Your task to perform on an android device: Open Chrome and go to settings Image 0: 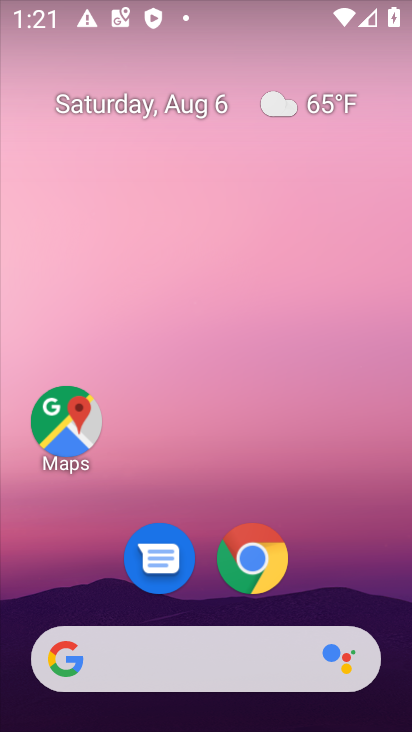
Step 0: click (256, 552)
Your task to perform on an android device: Open Chrome and go to settings Image 1: 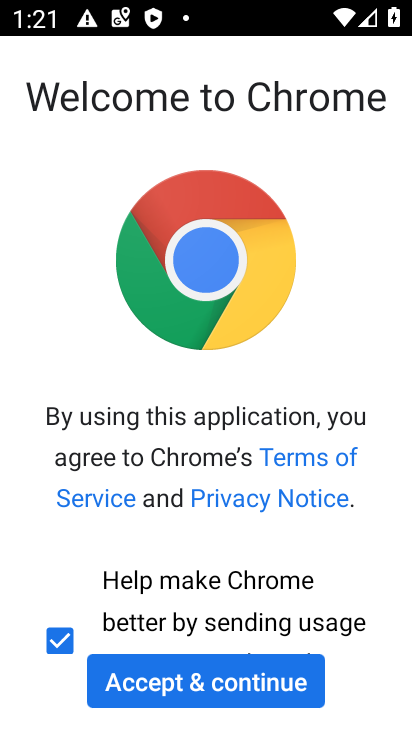
Step 1: click (207, 696)
Your task to perform on an android device: Open Chrome and go to settings Image 2: 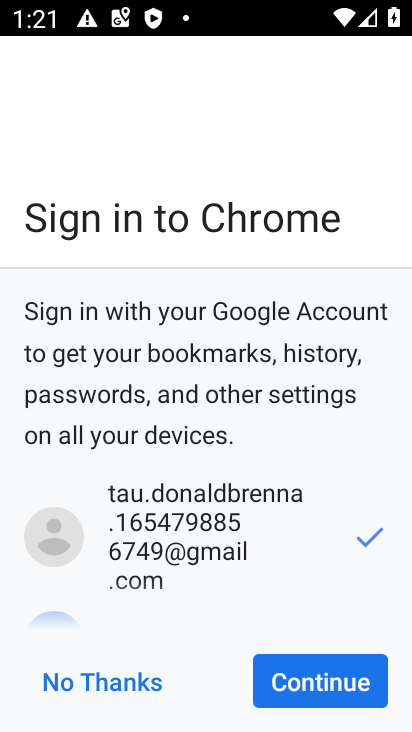
Step 2: click (300, 676)
Your task to perform on an android device: Open Chrome and go to settings Image 3: 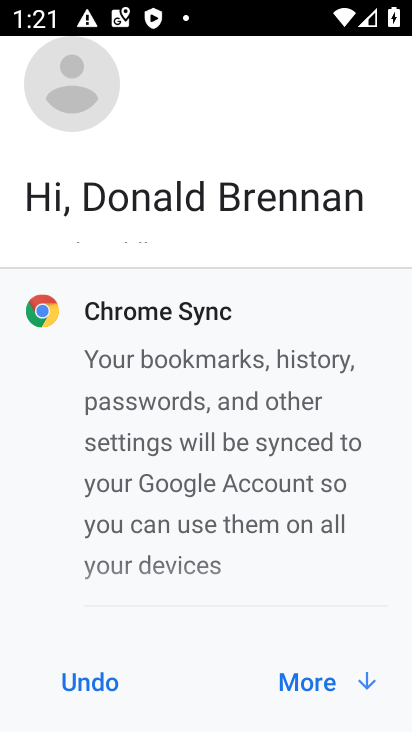
Step 3: click (306, 680)
Your task to perform on an android device: Open Chrome and go to settings Image 4: 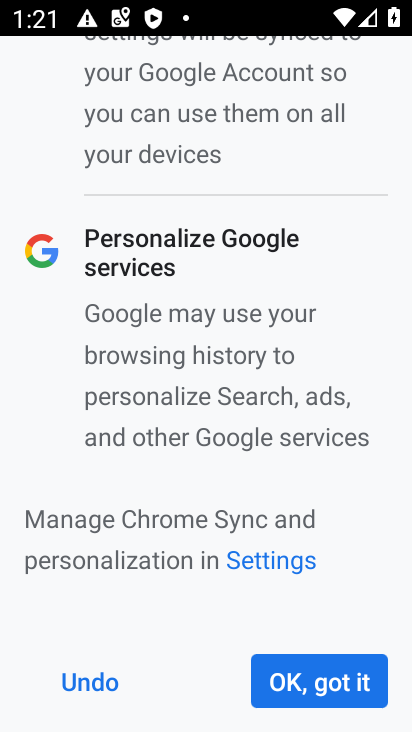
Step 4: click (306, 680)
Your task to perform on an android device: Open Chrome and go to settings Image 5: 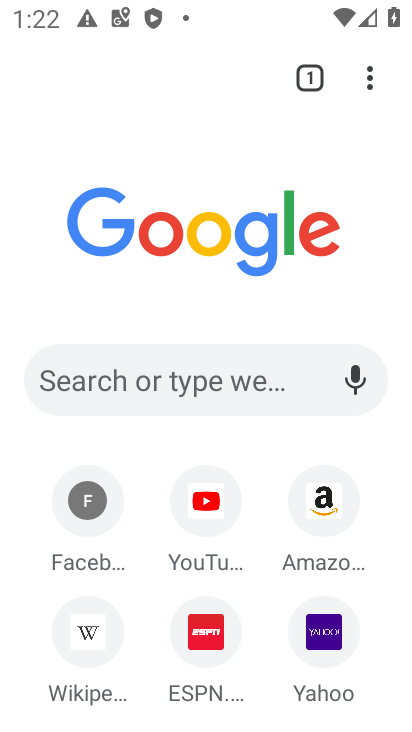
Step 5: task complete